Your task to perform on an android device: What's the weather? Image 0: 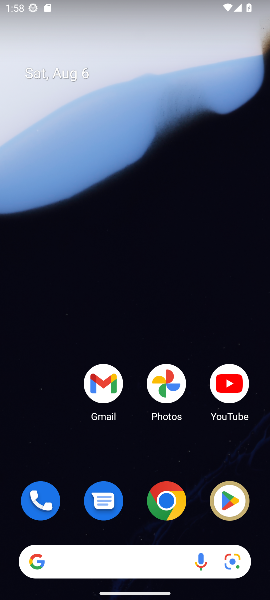
Step 0: press home button
Your task to perform on an android device: What's the weather? Image 1: 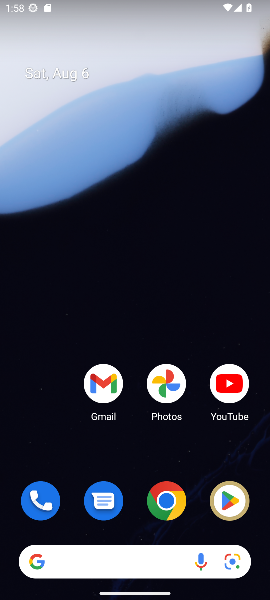
Step 1: click (42, 568)
Your task to perform on an android device: What's the weather? Image 2: 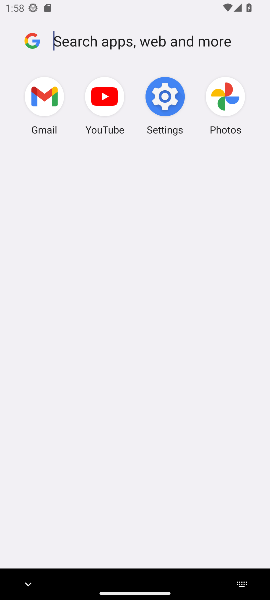
Step 2: press home button
Your task to perform on an android device: What's the weather? Image 3: 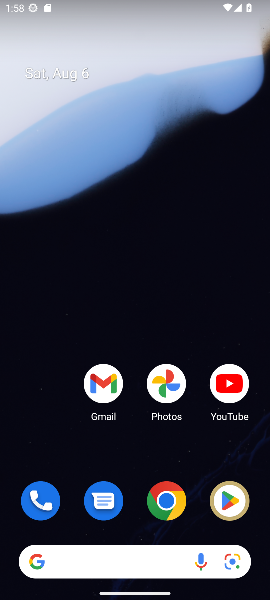
Step 3: drag from (145, 509) to (199, 120)
Your task to perform on an android device: What's the weather? Image 4: 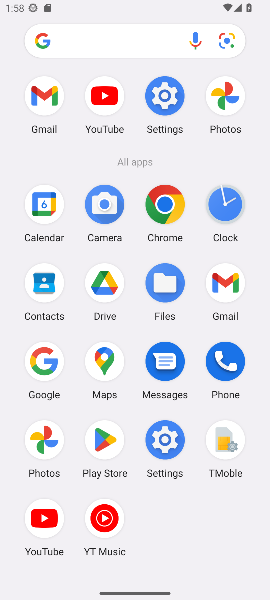
Step 4: click (48, 364)
Your task to perform on an android device: What's the weather? Image 5: 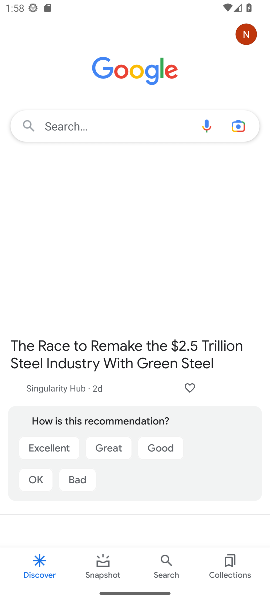
Step 5: click (101, 131)
Your task to perform on an android device: What's the weather? Image 6: 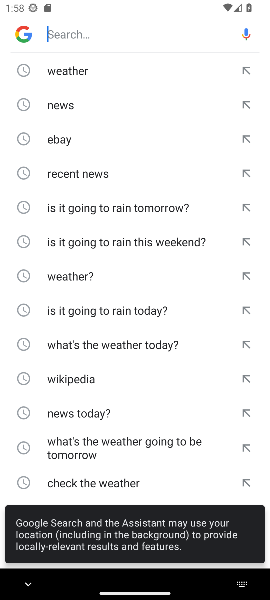
Step 6: click (54, 74)
Your task to perform on an android device: What's the weather? Image 7: 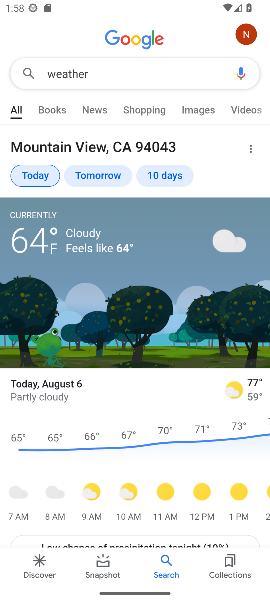
Step 7: task complete